Your task to perform on an android device: clear all cookies in the chrome app Image 0: 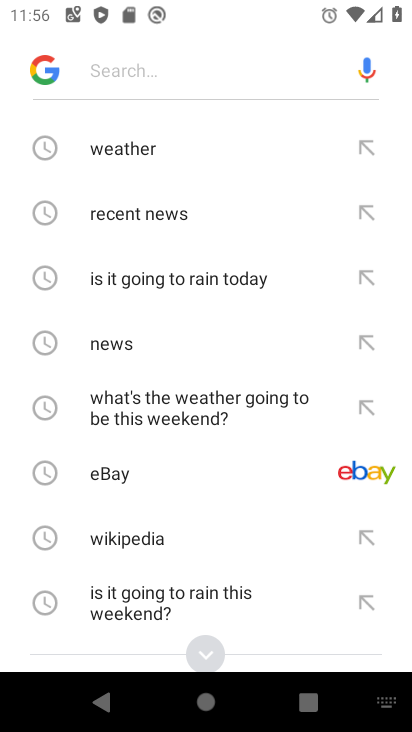
Step 0: press back button
Your task to perform on an android device: clear all cookies in the chrome app Image 1: 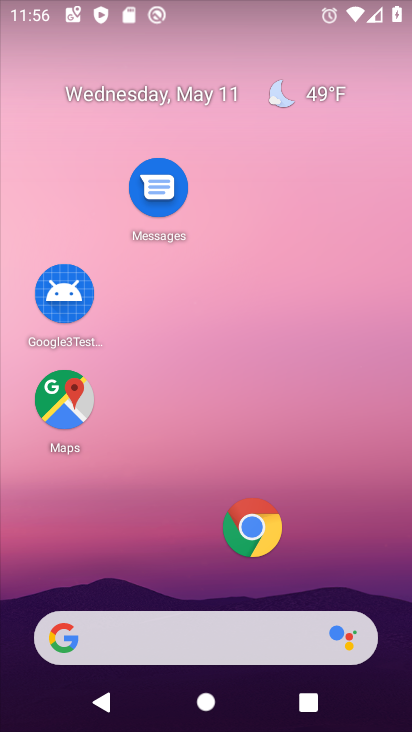
Step 1: click (246, 539)
Your task to perform on an android device: clear all cookies in the chrome app Image 2: 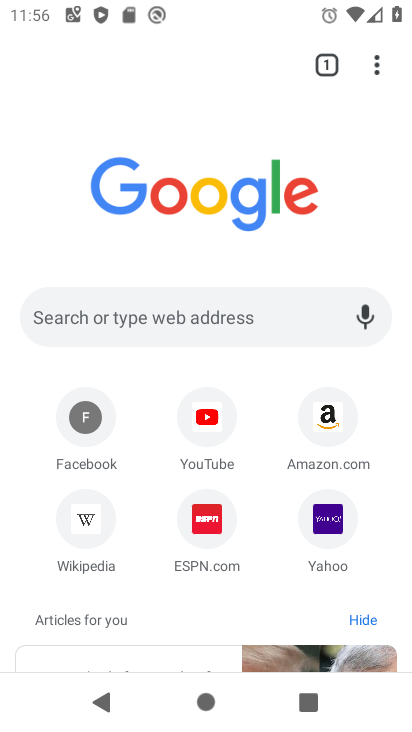
Step 2: click (374, 69)
Your task to perform on an android device: clear all cookies in the chrome app Image 3: 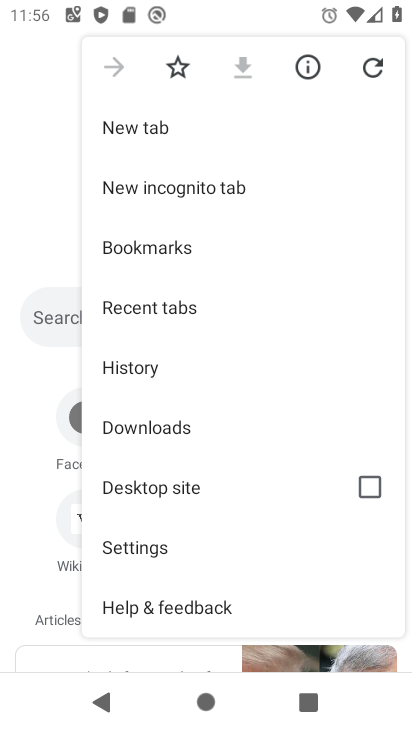
Step 3: click (158, 535)
Your task to perform on an android device: clear all cookies in the chrome app Image 4: 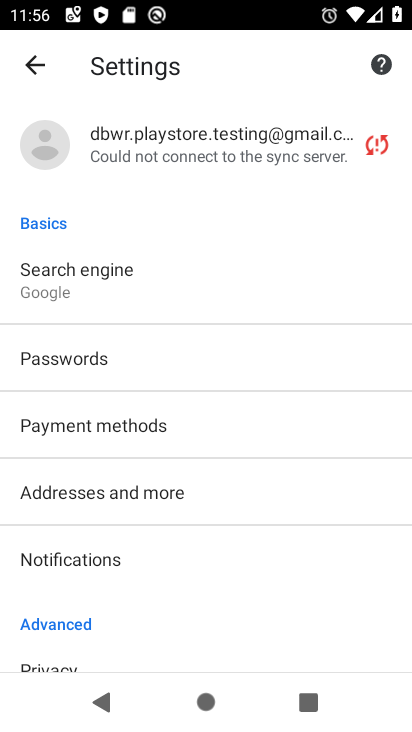
Step 4: click (60, 666)
Your task to perform on an android device: clear all cookies in the chrome app Image 5: 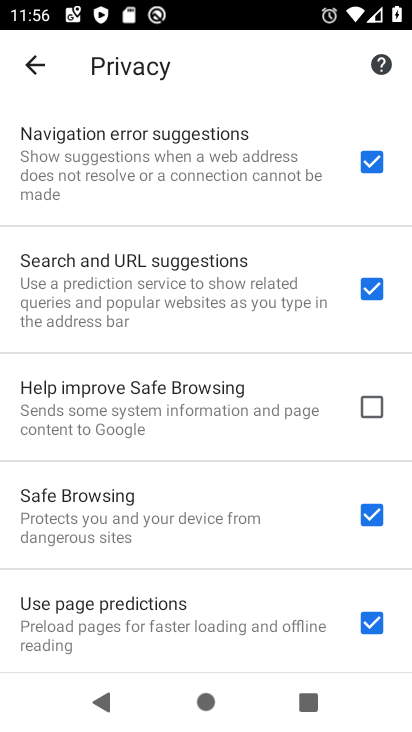
Step 5: drag from (197, 593) to (117, 148)
Your task to perform on an android device: clear all cookies in the chrome app Image 6: 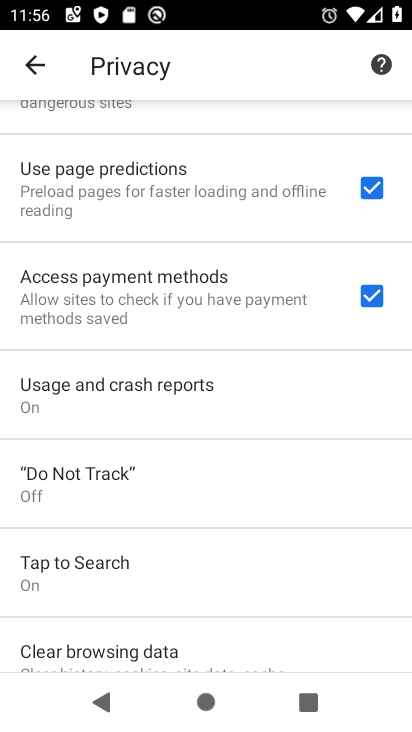
Step 6: click (234, 661)
Your task to perform on an android device: clear all cookies in the chrome app Image 7: 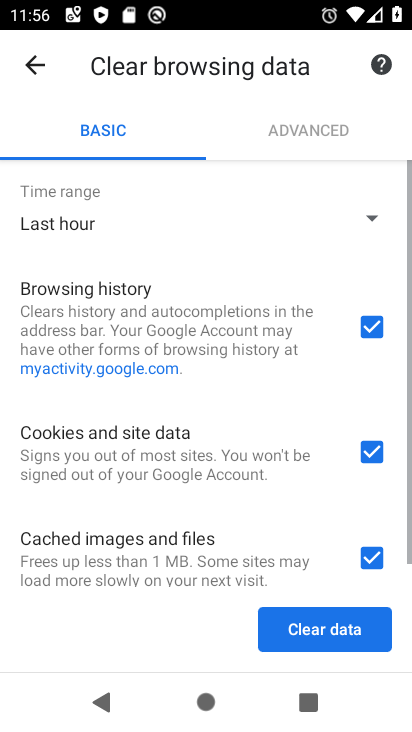
Step 7: click (305, 621)
Your task to perform on an android device: clear all cookies in the chrome app Image 8: 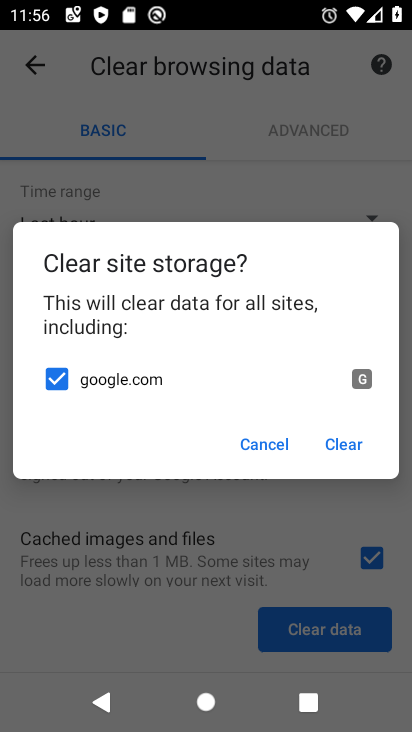
Step 8: click (344, 452)
Your task to perform on an android device: clear all cookies in the chrome app Image 9: 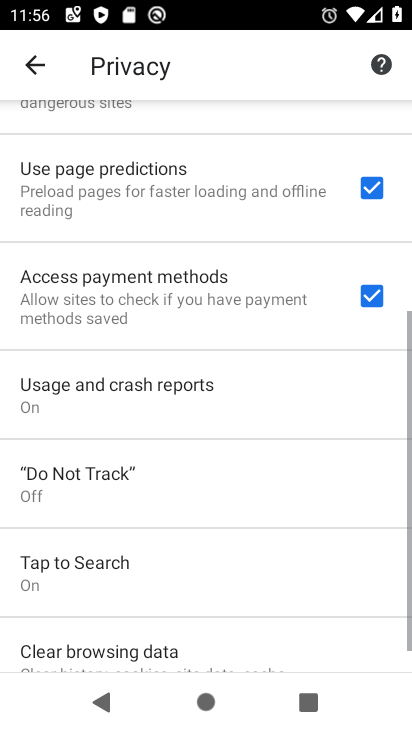
Step 9: task complete